Your task to perform on an android device: turn off smart reply in the gmail app Image 0: 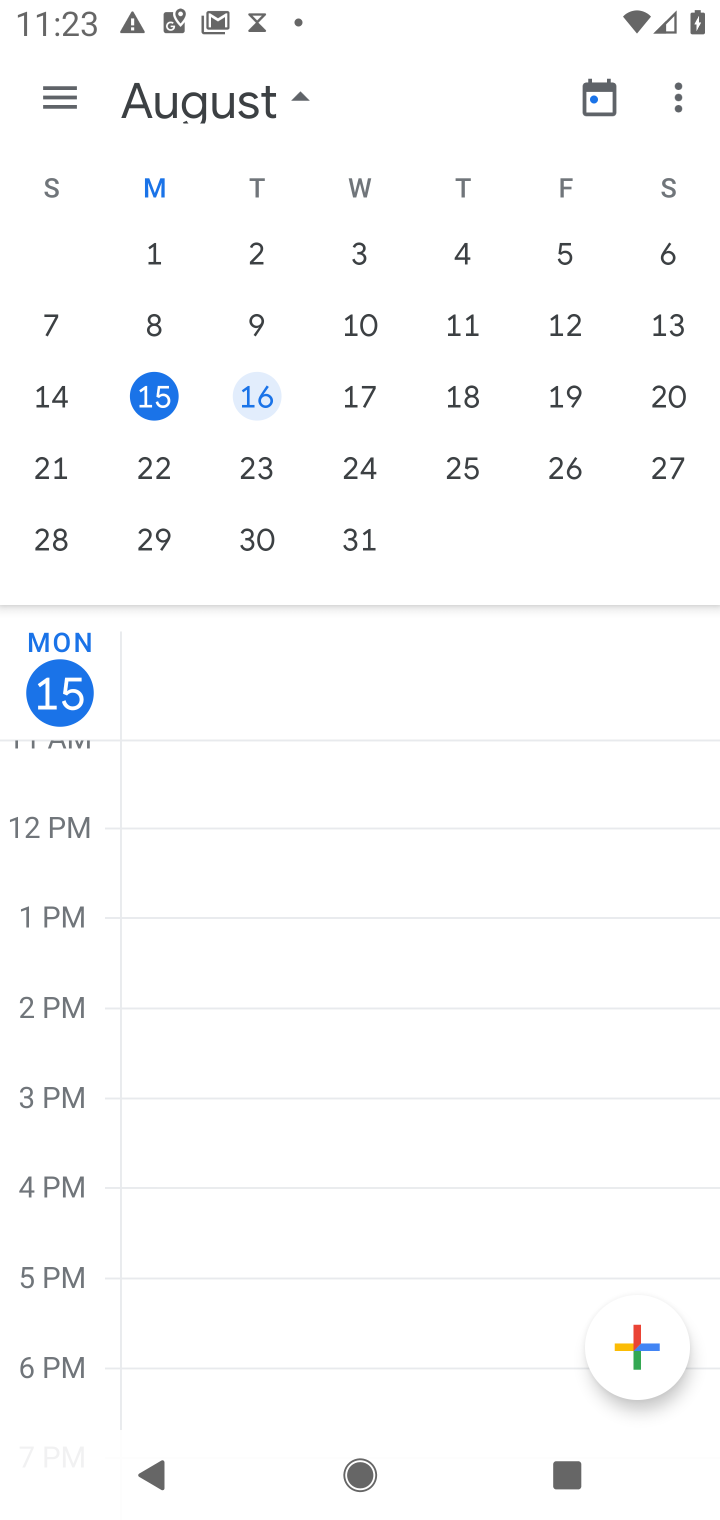
Step 0: press home button
Your task to perform on an android device: turn off smart reply in the gmail app Image 1: 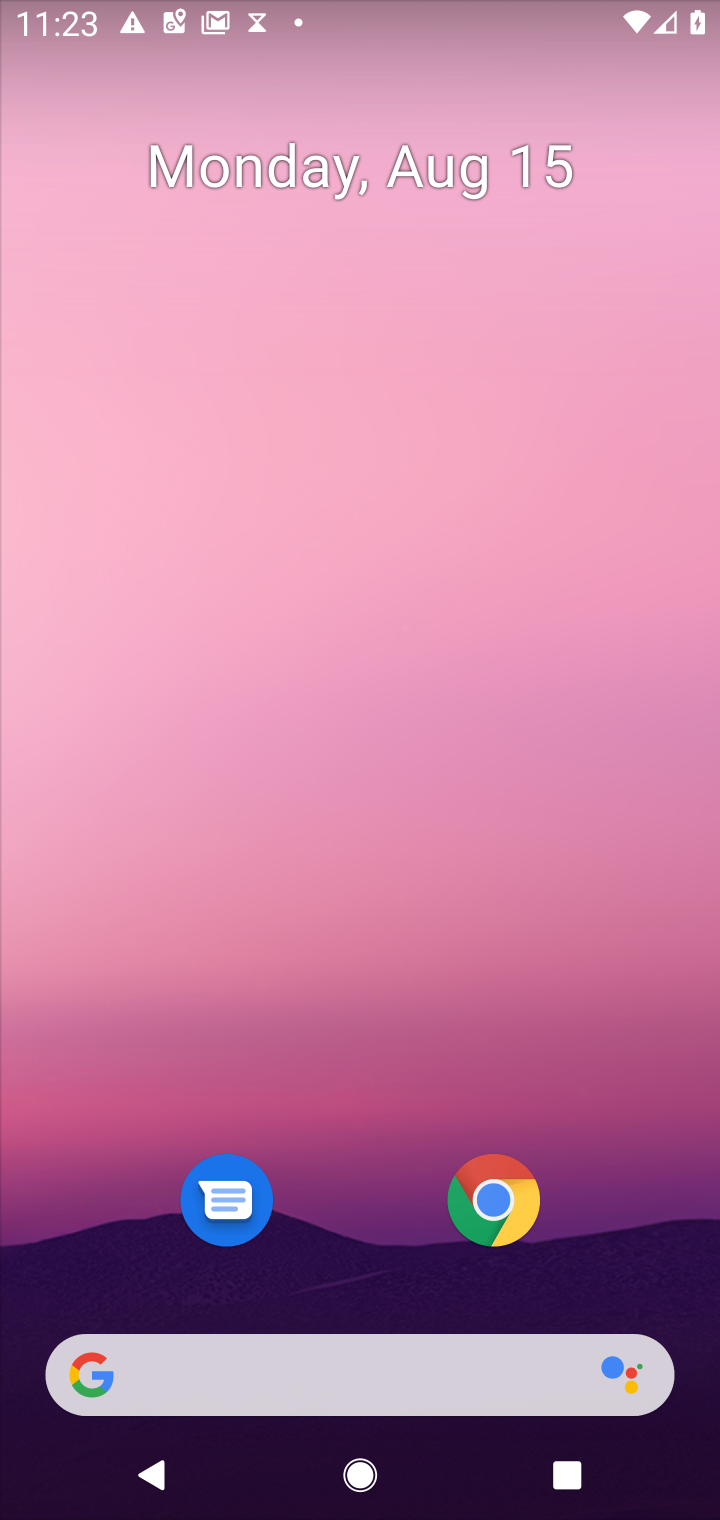
Step 1: drag from (386, 868) to (386, 596)
Your task to perform on an android device: turn off smart reply in the gmail app Image 2: 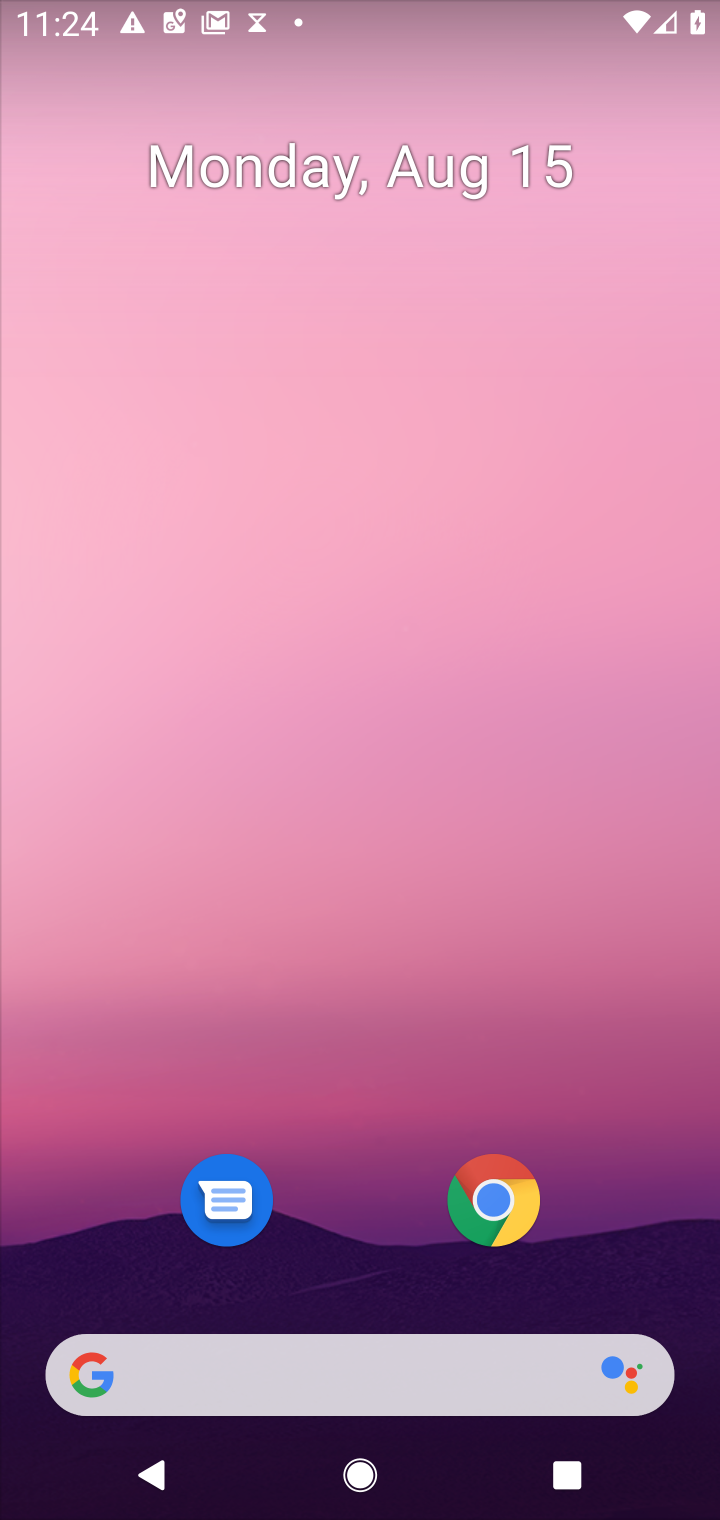
Step 2: drag from (379, 1242) to (384, 130)
Your task to perform on an android device: turn off smart reply in the gmail app Image 3: 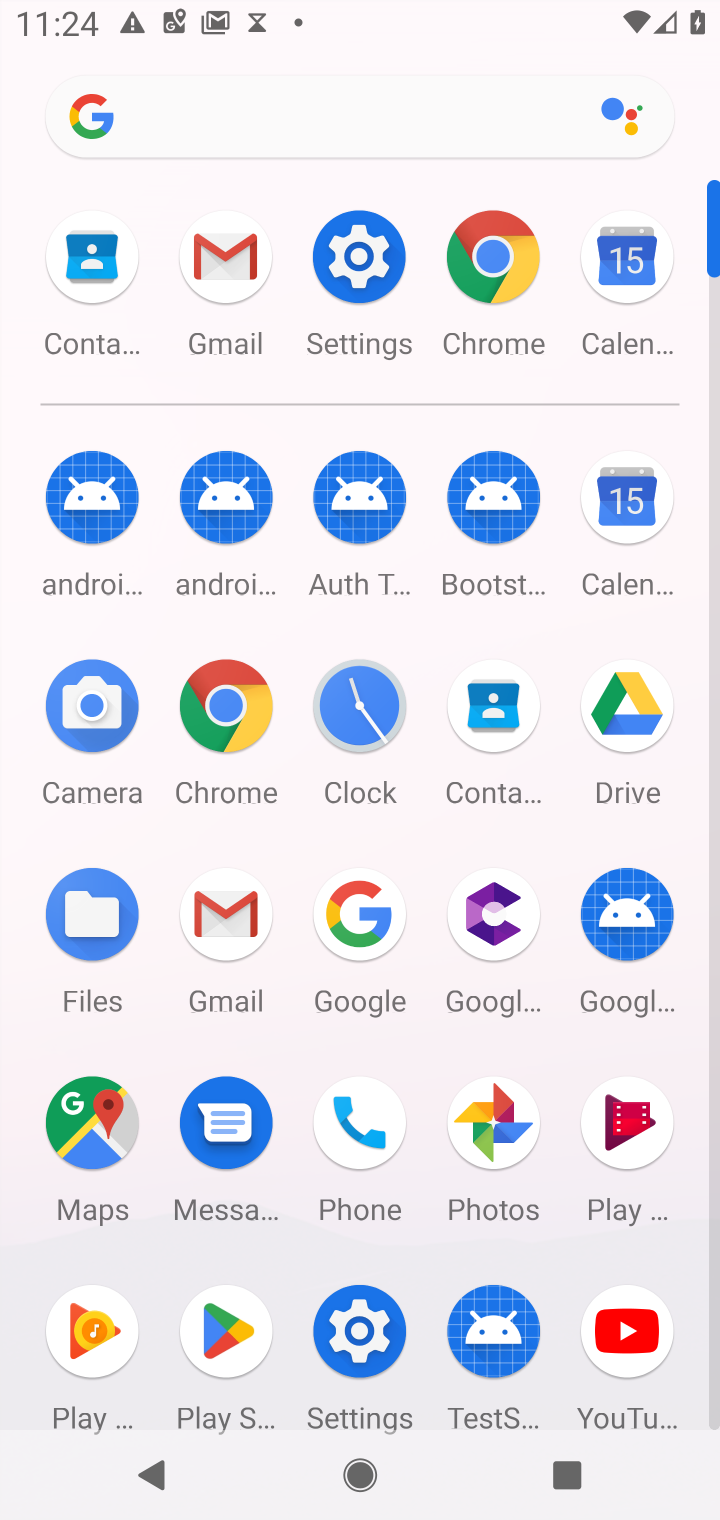
Step 3: click (223, 293)
Your task to perform on an android device: turn off smart reply in the gmail app Image 4: 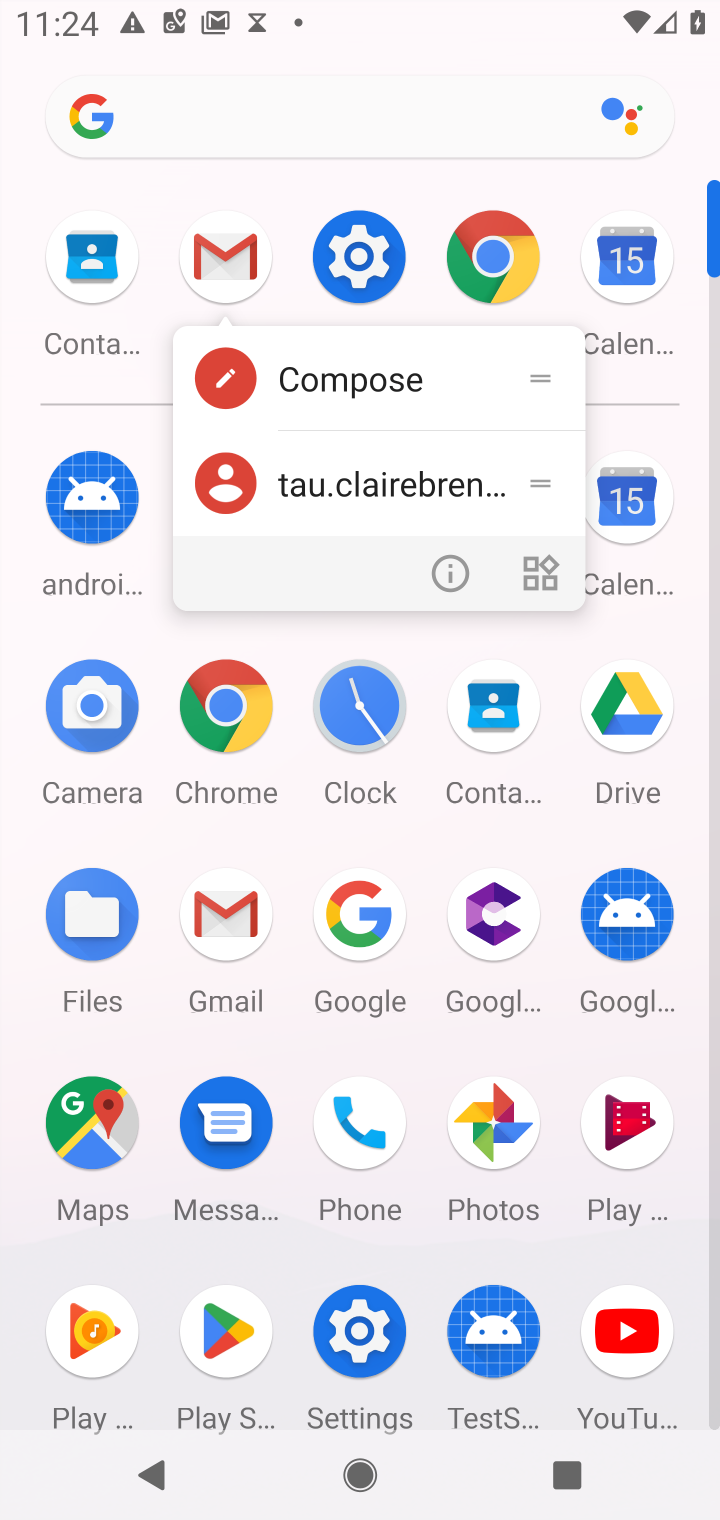
Step 4: click (223, 266)
Your task to perform on an android device: turn off smart reply in the gmail app Image 5: 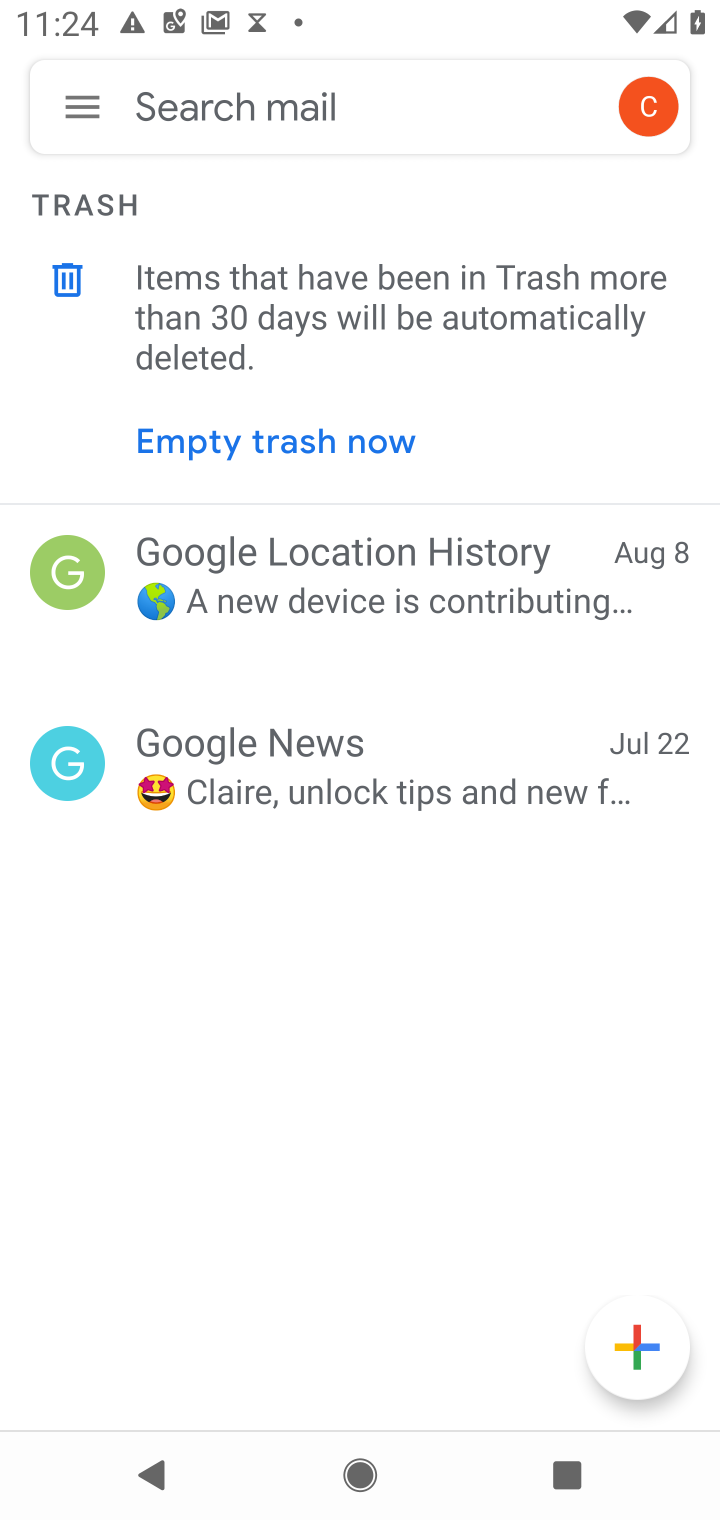
Step 5: click (93, 119)
Your task to perform on an android device: turn off smart reply in the gmail app Image 6: 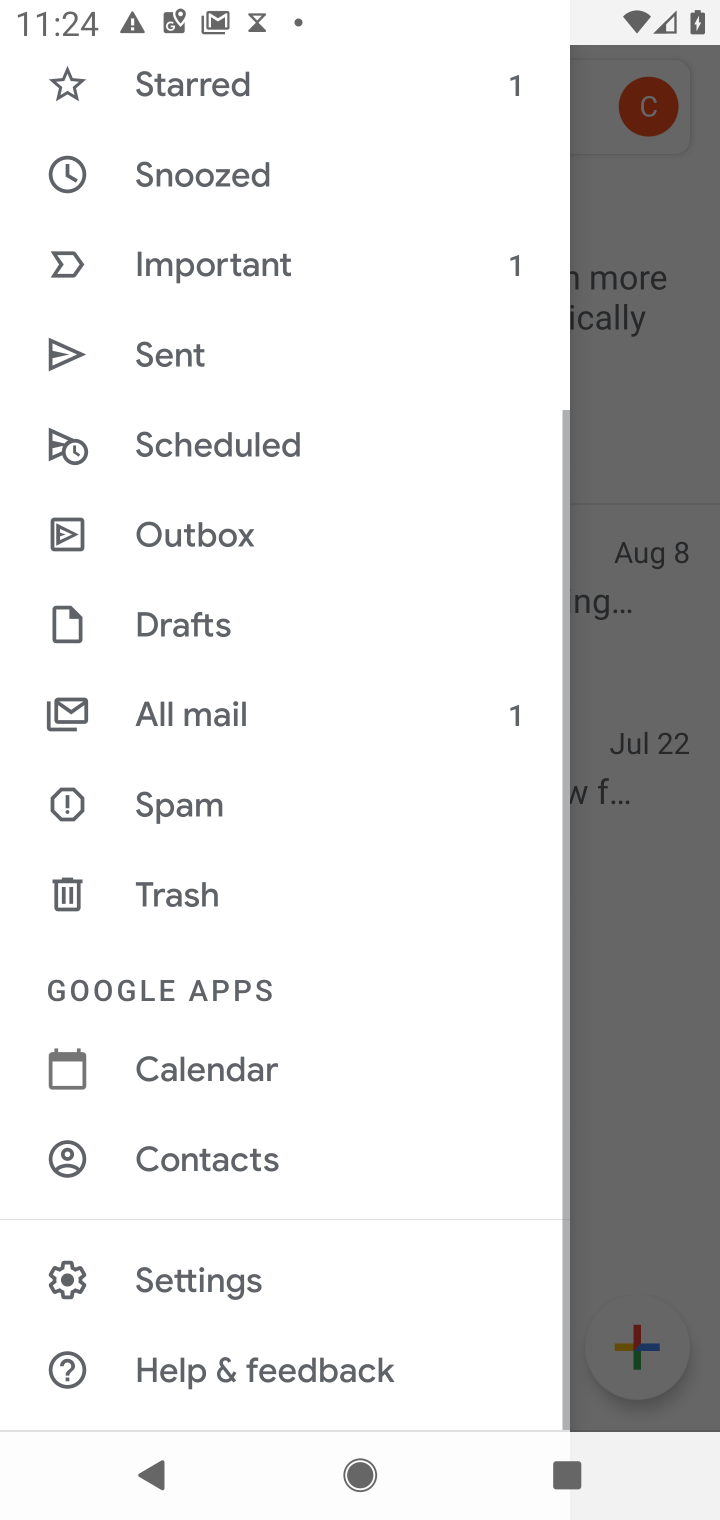
Step 6: click (225, 1280)
Your task to perform on an android device: turn off smart reply in the gmail app Image 7: 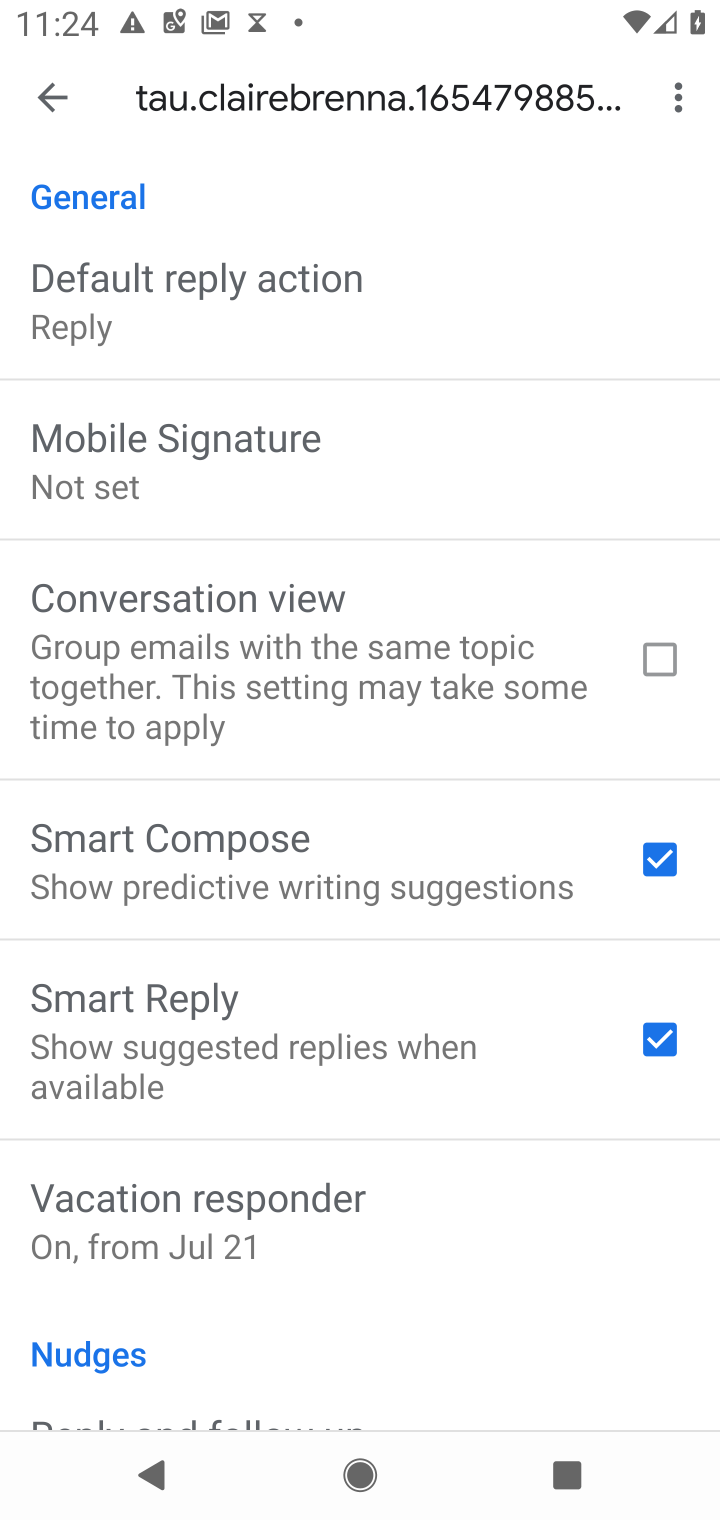
Step 7: click (655, 1033)
Your task to perform on an android device: turn off smart reply in the gmail app Image 8: 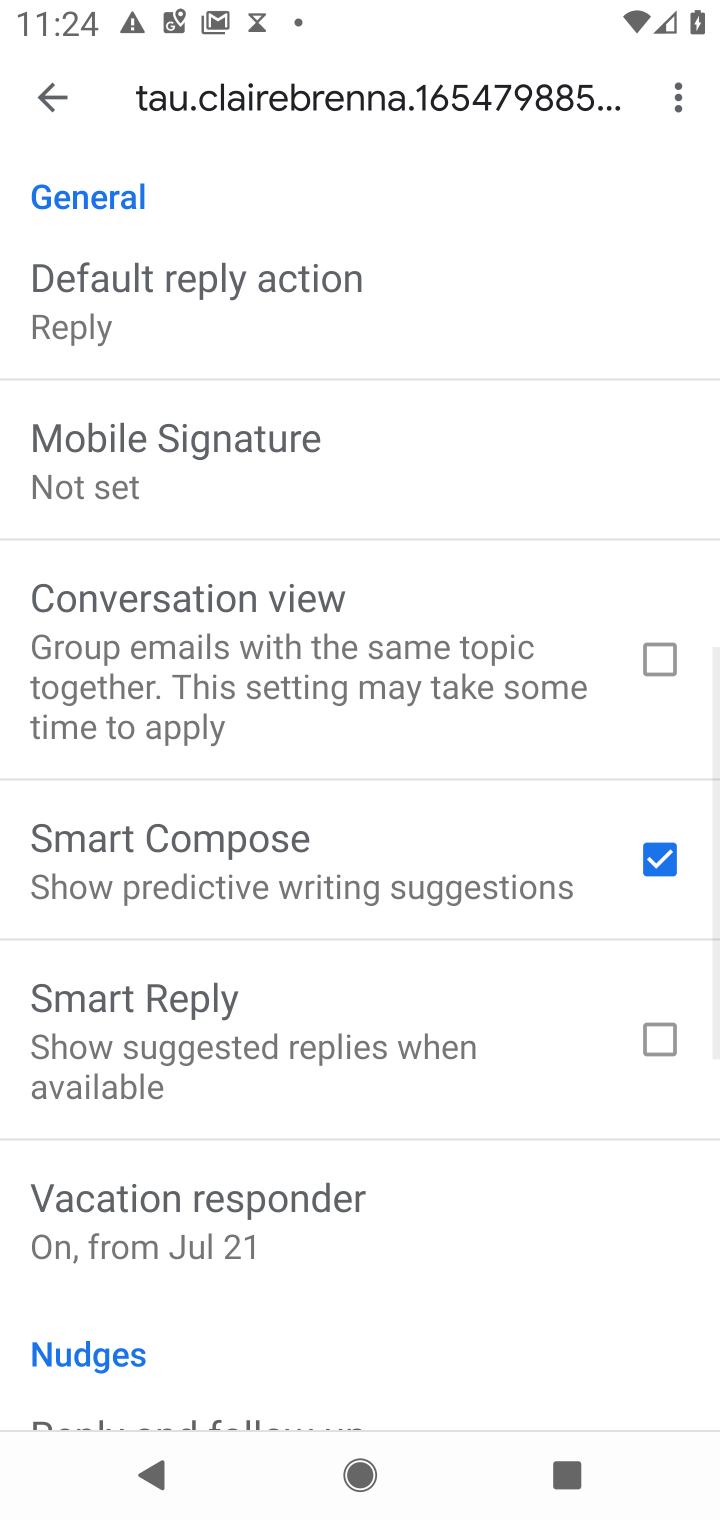
Step 8: task complete